Your task to perform on an android device: turn on location history Image 0: 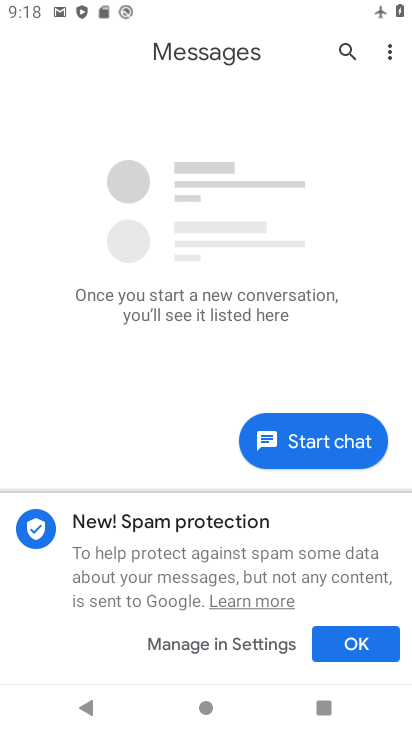
Step 0: press home button
Your task to perform on an android device: turn on location history Image 1: 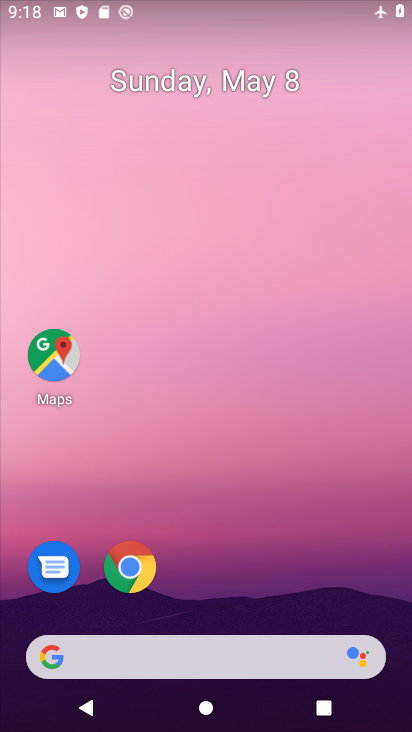
Step 1: drag from (227, 722) to (210, 190)
Your task to perform on an android device: turn on location history Image 2: 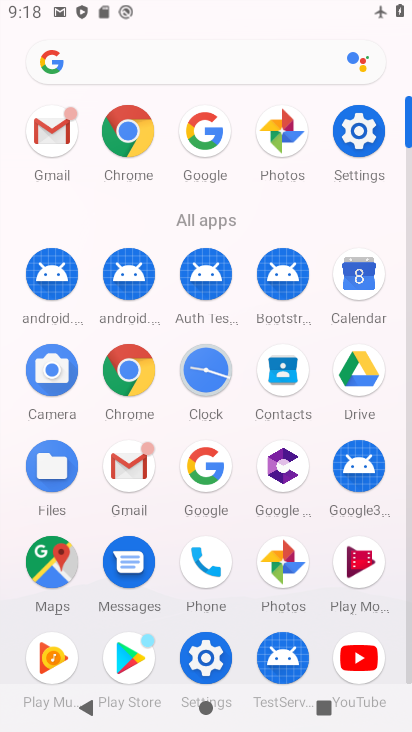
Step 2: click (343, 131)
Your task to perform on an android device: turn on location history Image 3: 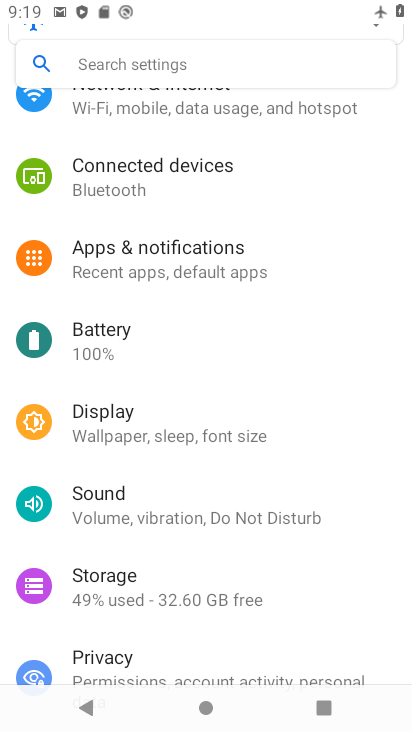
Step 3: drag from (167, 139) to (151, 513)
Your task to perform on an android device: turn on location history Image 4: 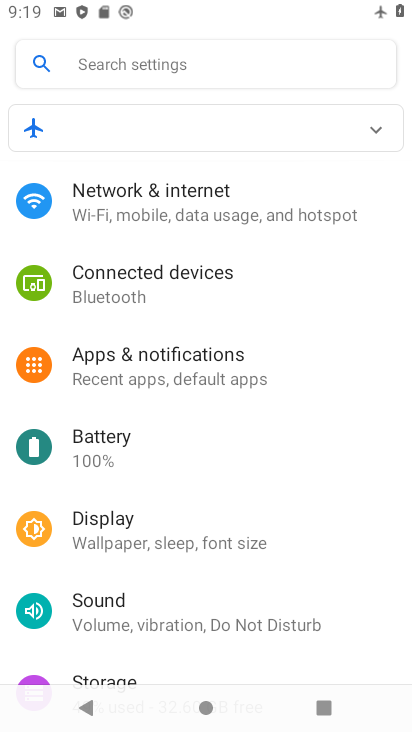
Step 4: drag from (148, 670) to (156, 239)
Your task to perform on an android device: turn on location history Image 5: 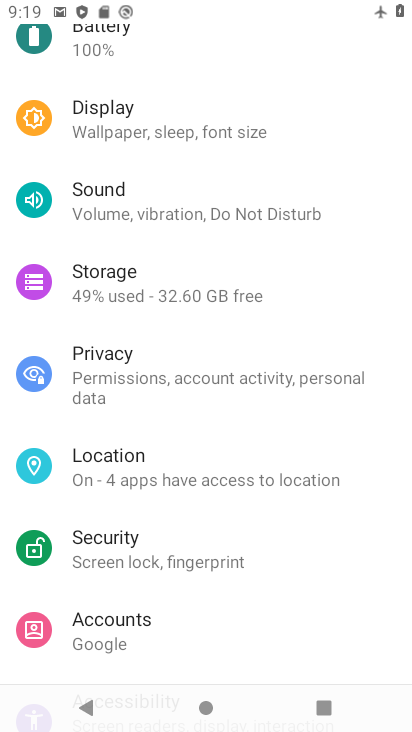
Step 5: click (147, 468)
Your task to perform on an android device: turn on location history Image 6: 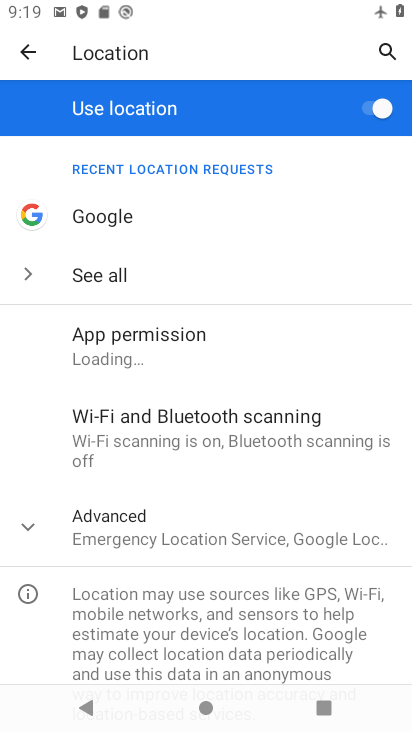
Step 6: click (132, 535)
Your task to perform on an android device: turn on location history Image 7: 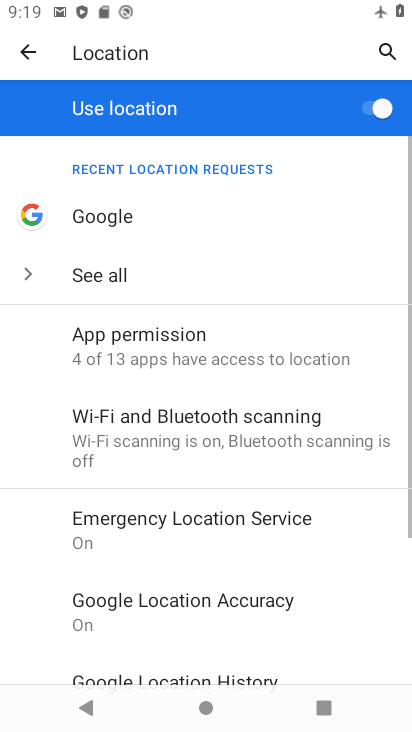
Step 7: drag from (174, 666) to (174, 425)
Your task to perform on an android device: turn on location history Image 8: 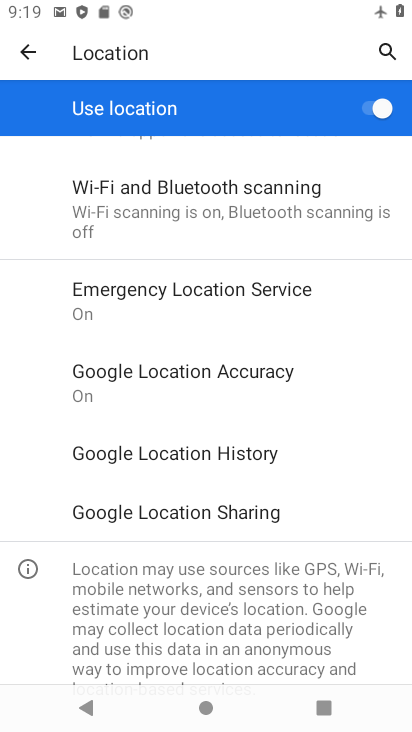
Step 8: click (216, 445)
Your task to perform on an android device: turn on location history Image 9: 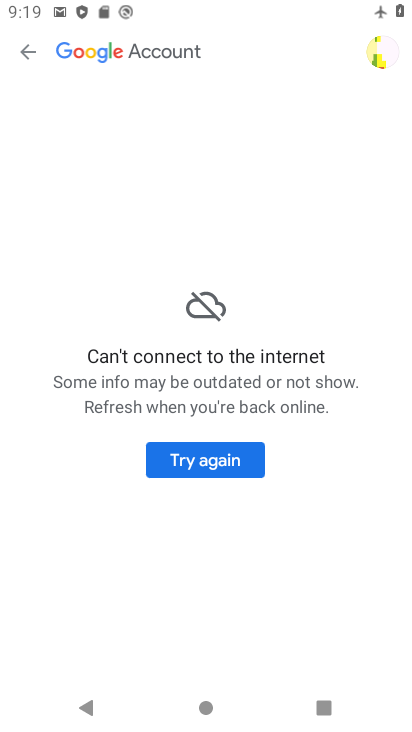
Step 9: task complete